Your task to perform on an android device: turn off data saver in the chrome app Image 0: 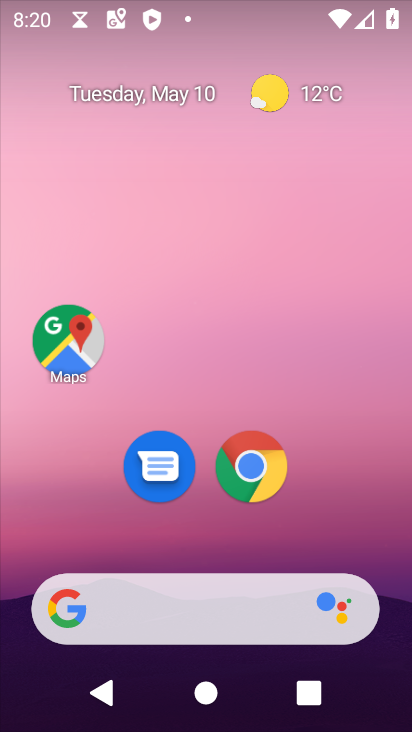
Step 0: click (258, 469)
Your task to perform on an android device: turn off data saver in the chrome app Image 1: 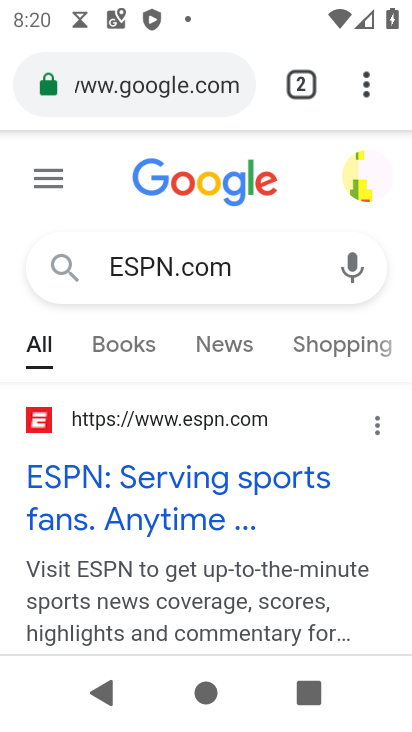
Step 1: click (380, 93)
Your task to perform on an android device: turn off data saver in the chrome app Image 2: 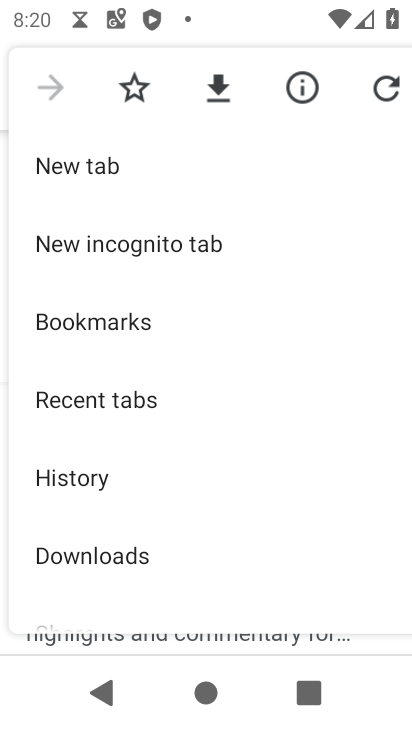
Step 2: drag from (149, 533) to (194, 221)
Your task to perform on an android device: turn off data saver in the chrome app Image 3: 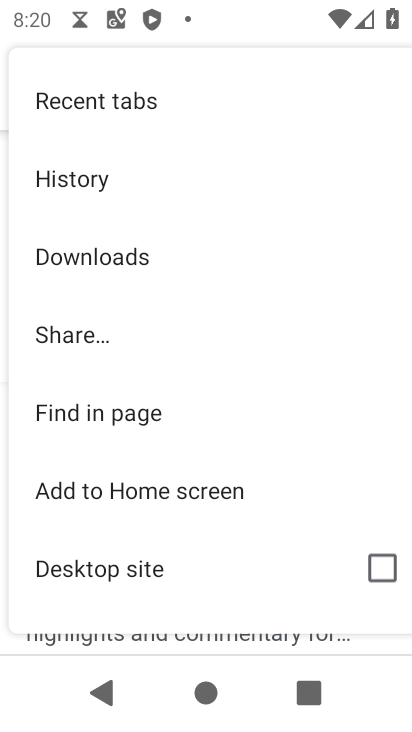
Step 3: drag from (136, 536) to (203, 190)
Your task to perform on an android device: turn off data saver in the chrome app Image 4: 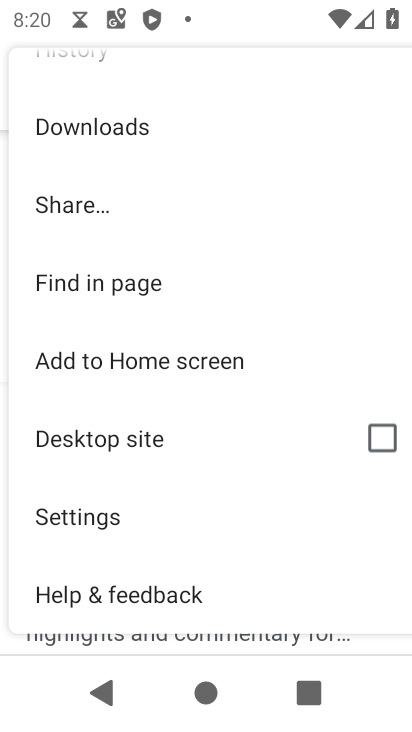
Step 4: click (92, 507)
Your task to perform on an android device: turn off data saver in the chrome app Image 5: 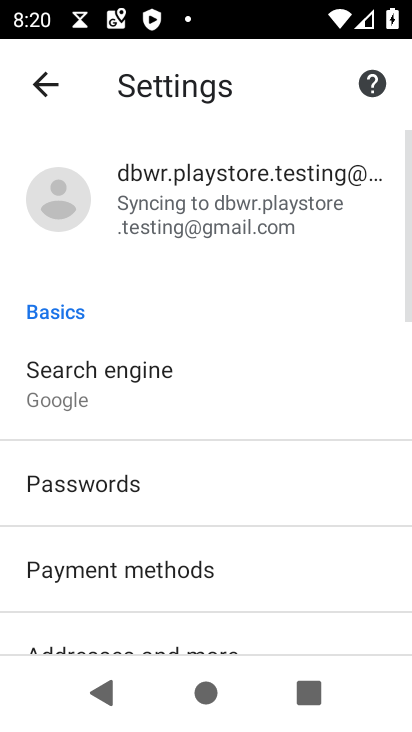
Step 5: drag from (182, 509) to (232, 188)
Your task to perform on an android device: turn off data saver in the chrome app Image 6: 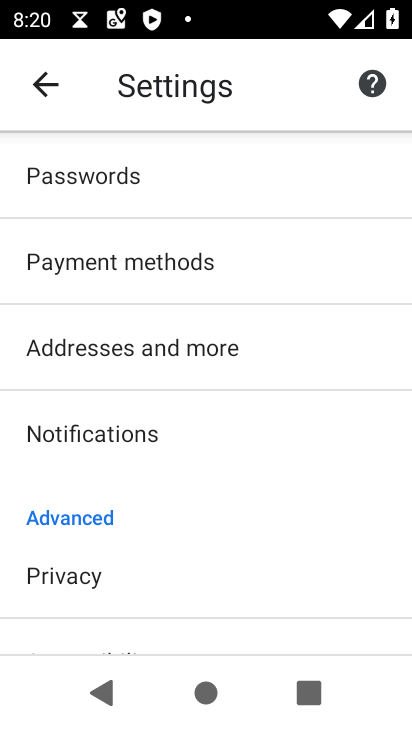
Step 6: drag from (117, 490) to (189, 161)
Your task to perform on an android device: turn off data saver in the chrome app Image 7: 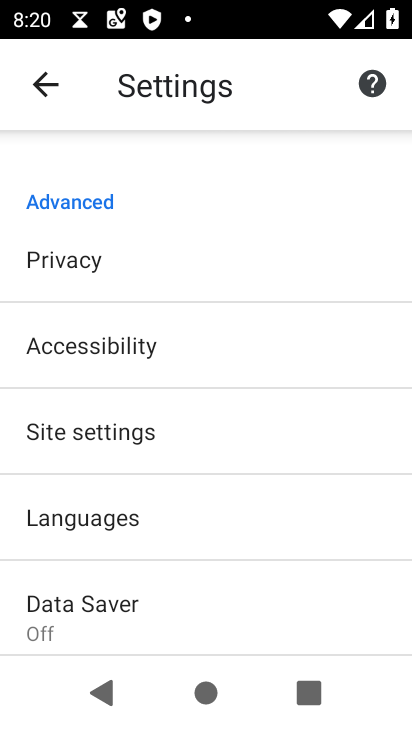
Step 7: click (87, 602)
Your task to perform on an android device: turn off data saver in the chrome app Image 8: 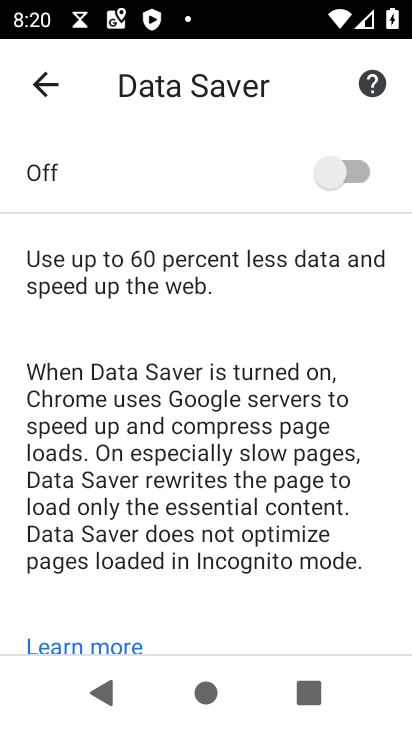
Step 8: task complete